Your task to perform on an android device: Go to Yahoo.com Image 0: 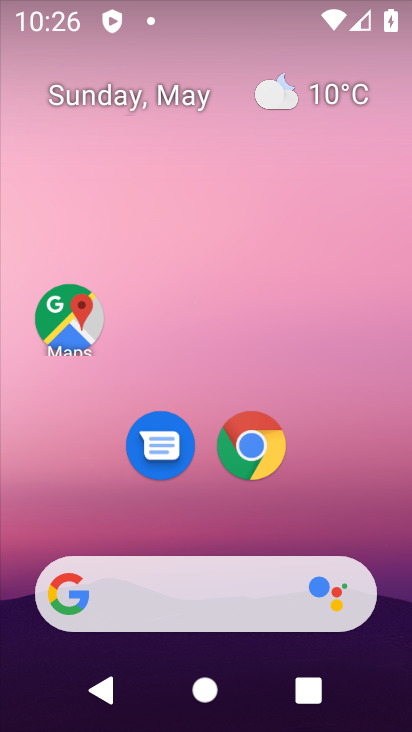
Step 0: click (237, 452)
Your task to perform on an android device: Go to Yahoo.com Image 1: 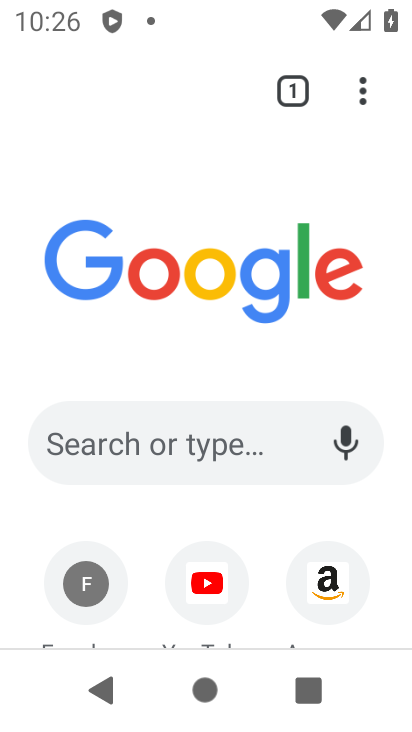
Step 1: drag from (238, 495) to (287, 174)
Your task to perform on an android device: Go to Yahoo.com Image 2: 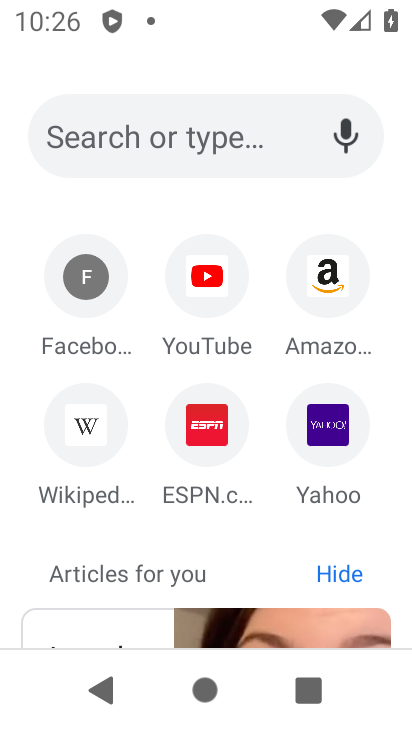
Step 2: click (313, 442)
Your task to perform on an android device: Go to Yahoo.com Image 3: 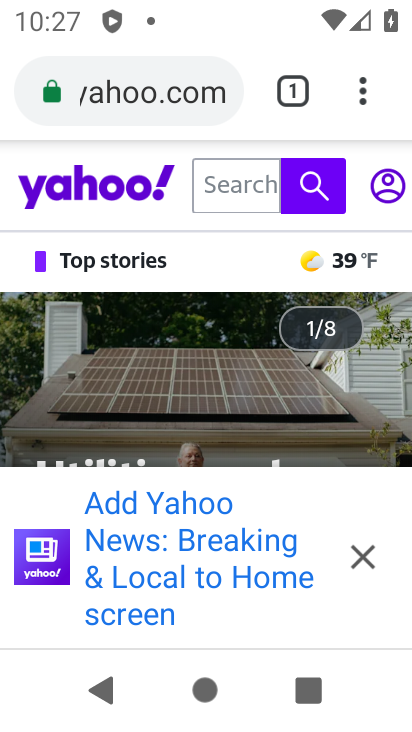
Step 3: task complete